Your task to perform on an android device: change keyboard looks Image 0: 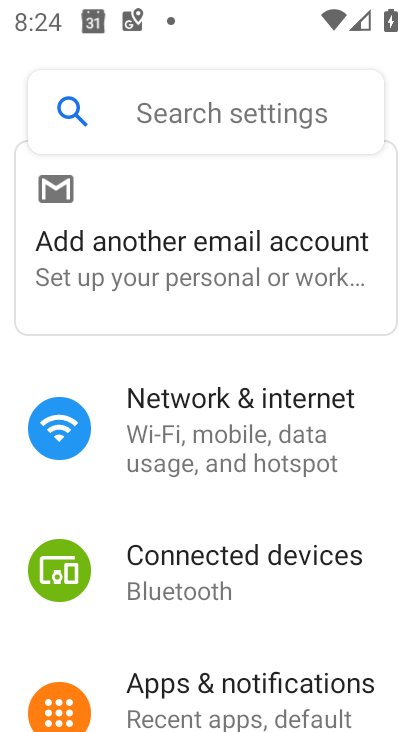
Step 0: press home button
Your task to perform on an android device: change keyboard looks Image 1: 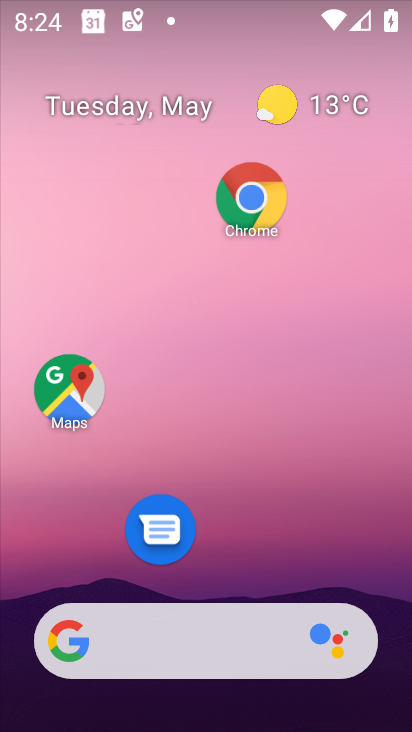
Step 1: drag from (289, 568) to (273, 150)
Your task to perform on an android device: change keyboard looks Image 2: 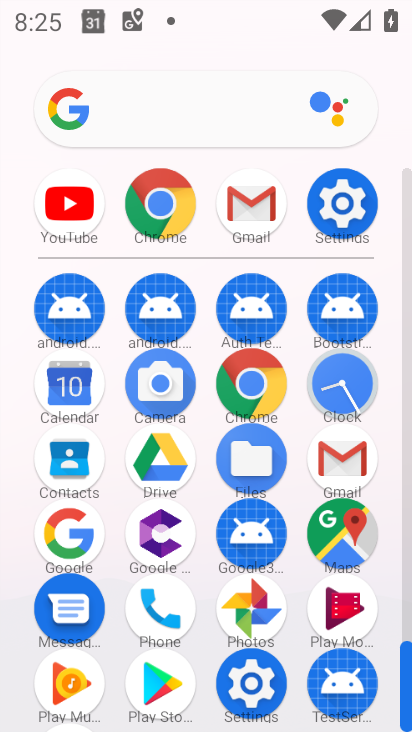
Step 2: click (341, 201)
Your task to perform on an android device: change keyboard looks Image 3: 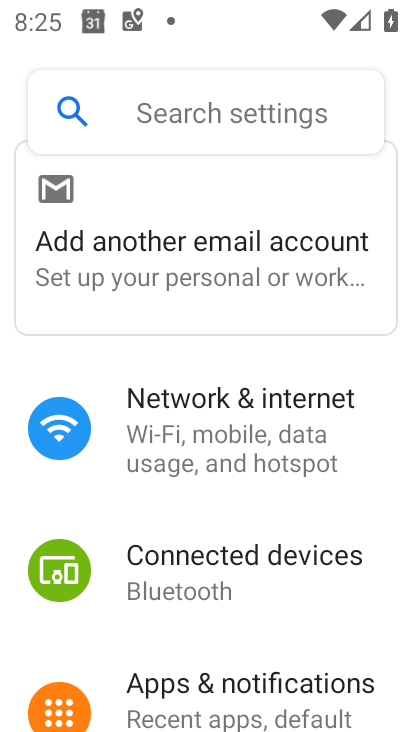
Step 3: drag from (233, 613) to (242, 154)
Your task to perform on an android device: change keyboard looks Image 4: 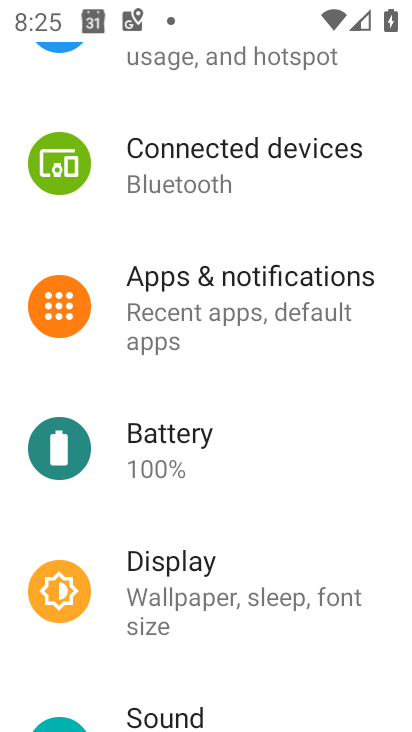
Step 4: drag from (253, 596) to (263, 285)
Your task to perform on an android device: change keyboard looks Image 5: 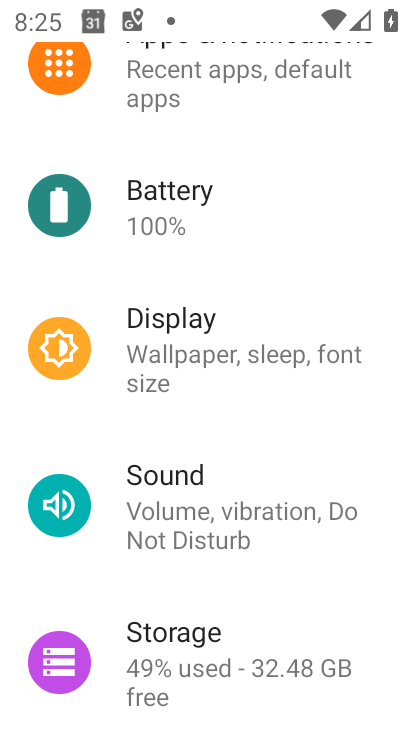
Step 5: drag from (254, 616) to (292, 140)
Your task to perform on an android device: change keyboard looks Image 6: 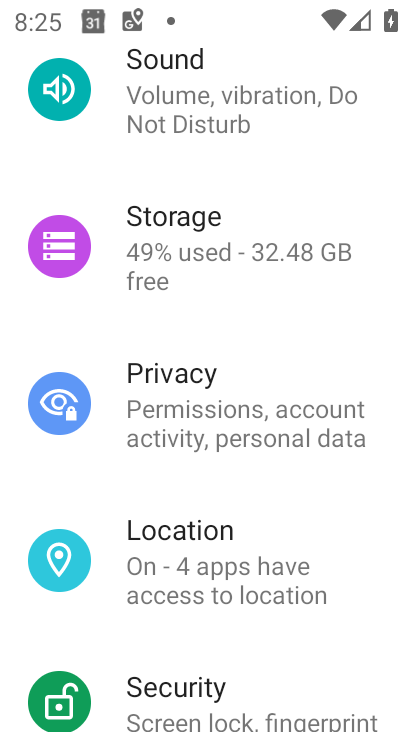
Step 6: drag from (279, 611) to (286, 143)
Your task to perform on an android device: change keyboard looks Image 7: 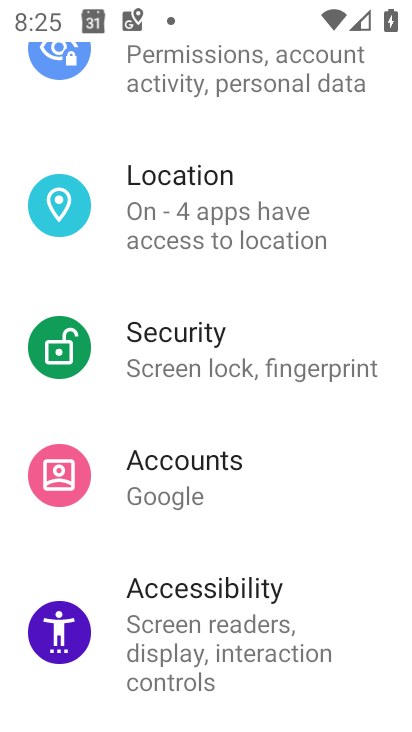
Step 7: drag from (245, 646) to (274, 370)
Your task to perform on an android device: change keyboard looks Image 8: 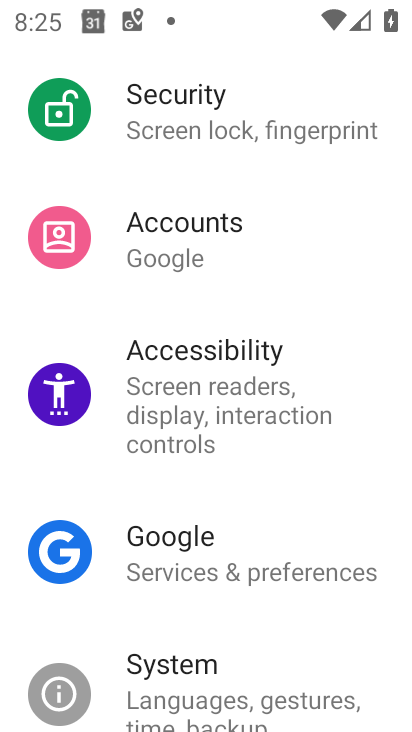
Step 8: drag from (226, 636) to (236, 361)
Your task to perform on an android device: change keyboard looks Image 9: 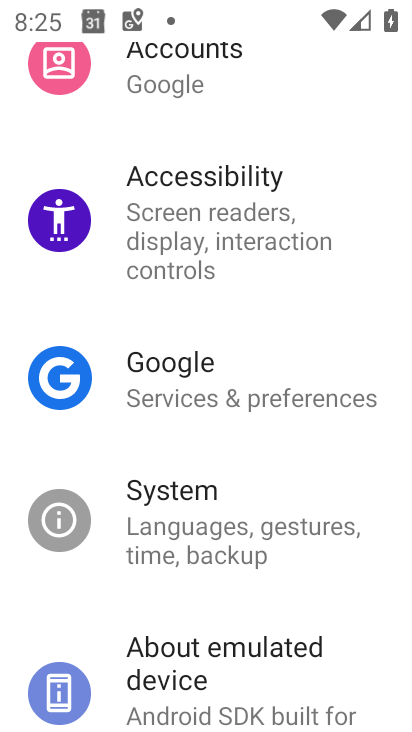
Step 9: click (212, 525)
Your task to perform on an android device: change keyboard looks Image 10: 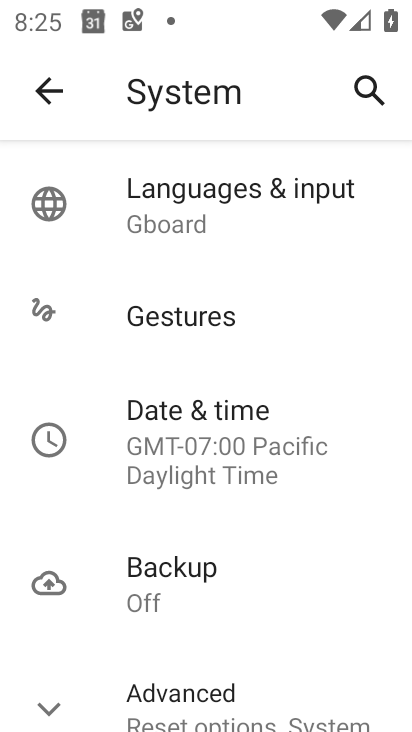
Step 10: click (196, 223)
Your task to perform on an android device: change keyboard looks Image 11: 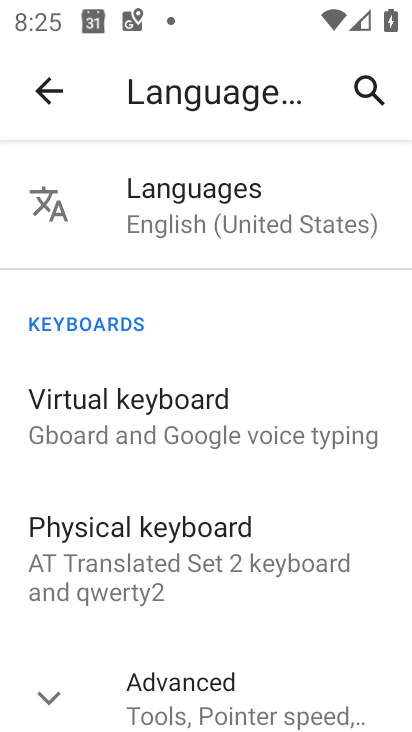
Step 11: click (200, 438)
Your task to perform on an android device: change keyboard looks Image 12: 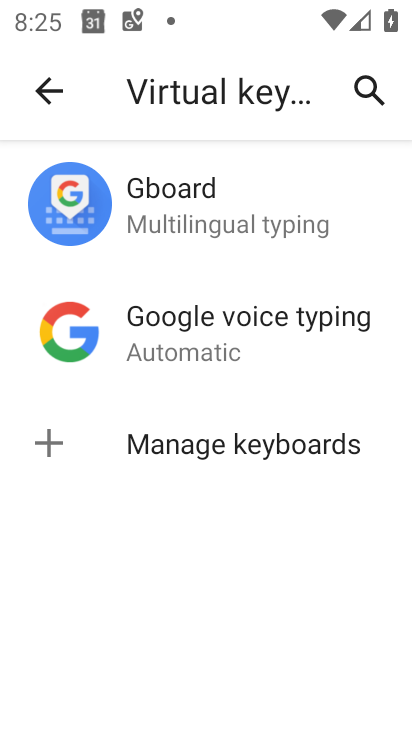
Step 12: click (157, 176)
Your task to perform on an android device: change keyboard looks Image 13: 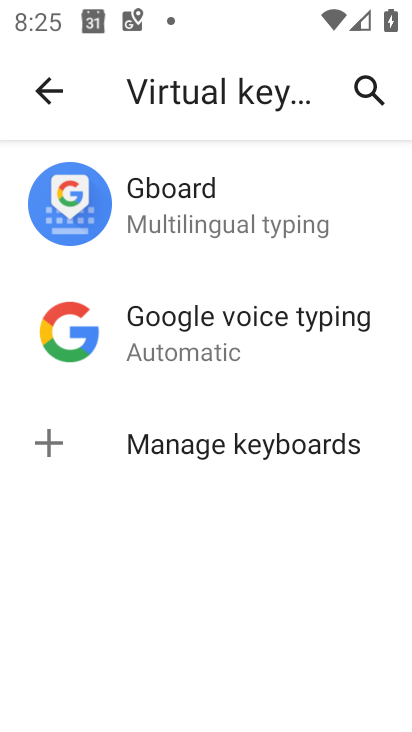
Step 13: click (157, 176)
Your task to perform on an android device: change keyboard looks Image 14: 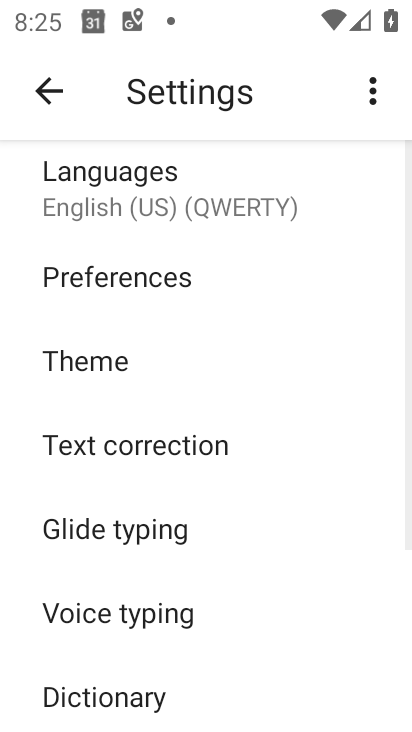
Step 14: click (131, 357)
Your task to perform on an android device: change keyboard looks Image 15: 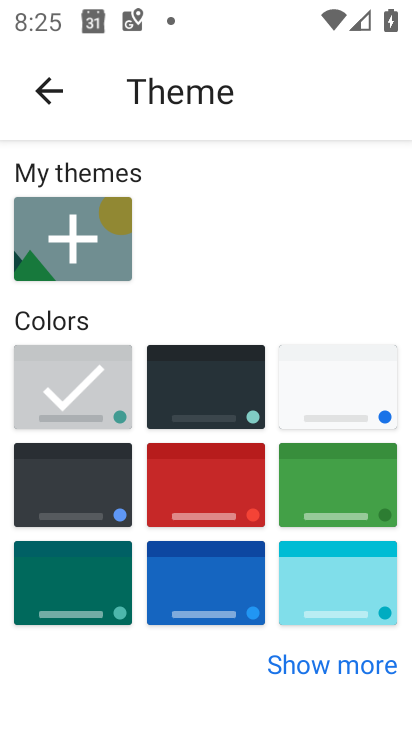
Step 15: click (172, 363)
Your task to perform on an android device: change keyboard looks Image 16: 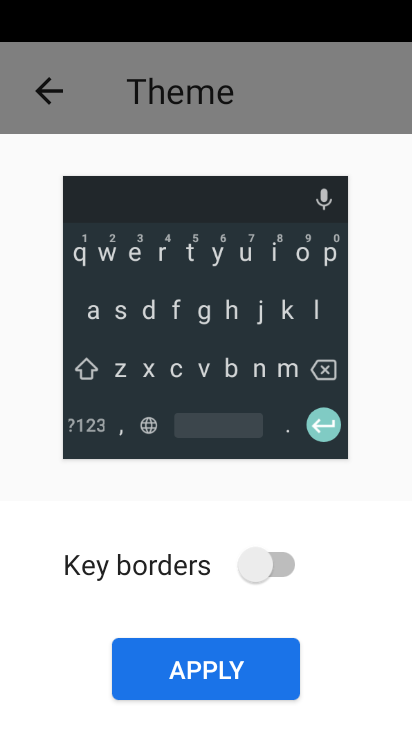
Step 16: click (197, 645)
Your task to perform on an android device: change keyboard looks Image 17: 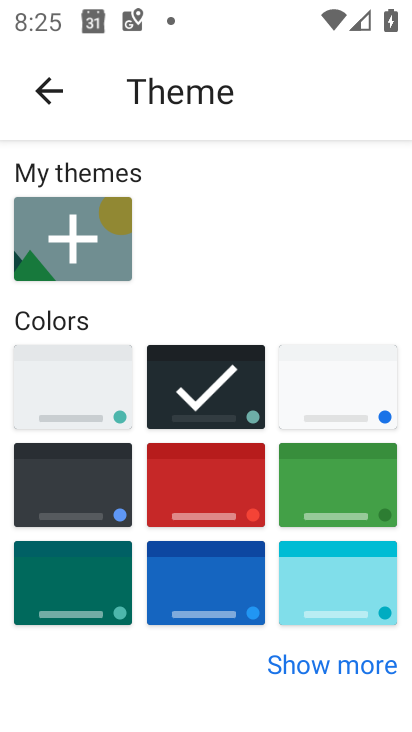
Step 17: task complete